Your task to perform on an android device: see tabs open on other devices in the chrome app Image 0: 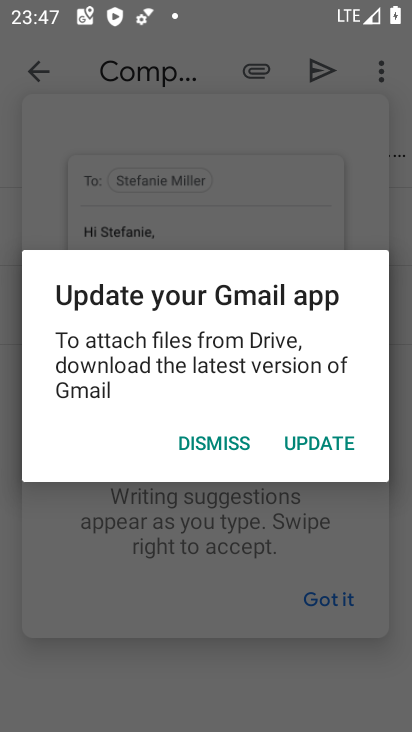
Step 0: press home button
Your task to perform on an android device: see tabs open on other devices in the chrome app Image 1: 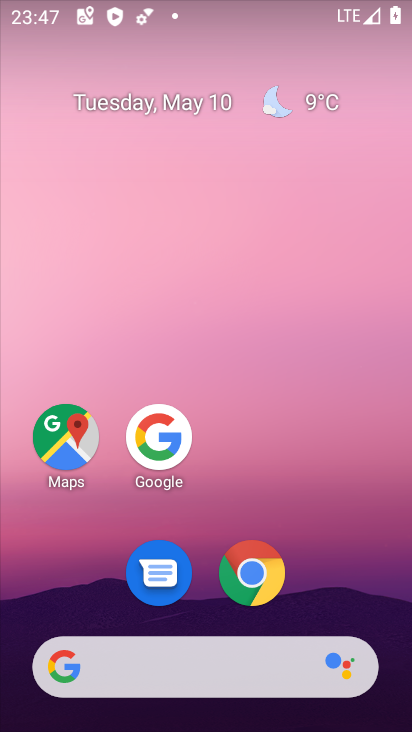
Step 1: drag from (148, 656) to (268, 72)
Your task to perform on an android device: see tabs open on other devices in the chrome app Image 2: 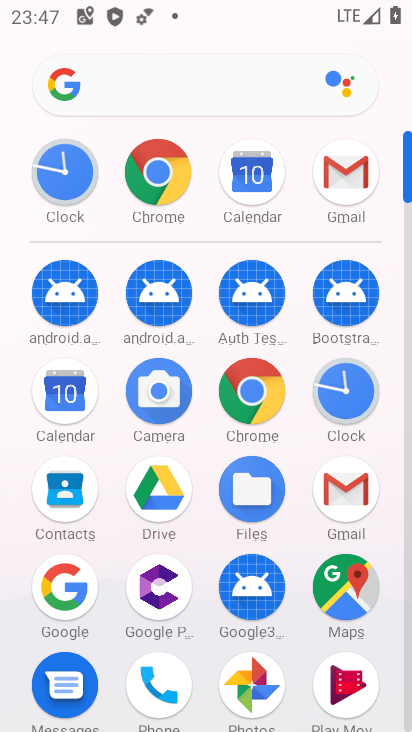
Step 2: click (170, 183)
Your task to perform on an android device: see tabs open on other devices in the chrome app Image 3: 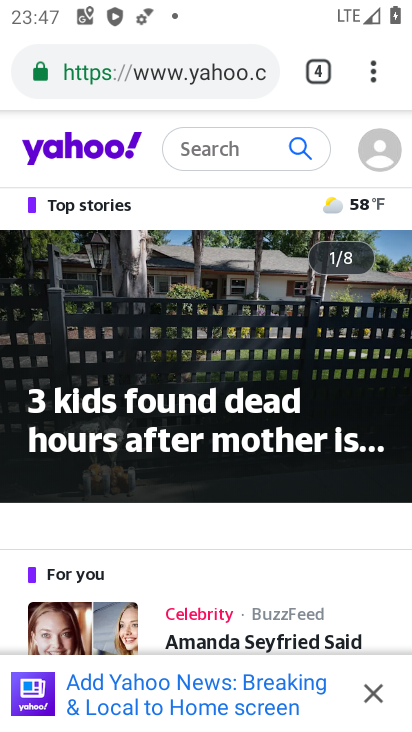
Step 3: task complete